Your task to perform on an android device: Search for "razer nari" on amazon.com, select the first entry, and add it to the cart. Image 0: 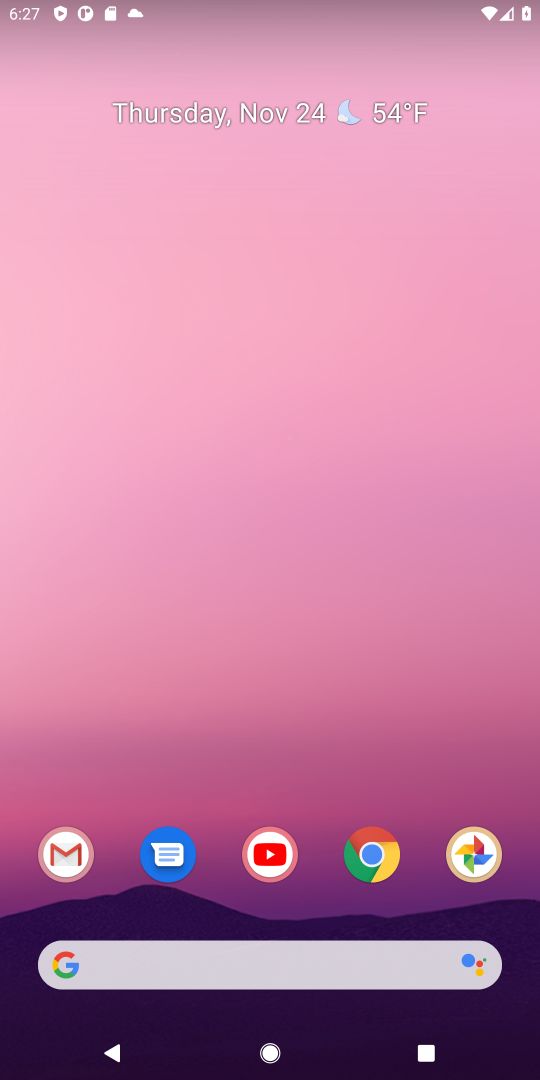
Step 0: click (379, 849)
Your task to perform on an android device: Search for "razer nari" on amazon.com, select the first entry, and add it to the cart. Image 1: 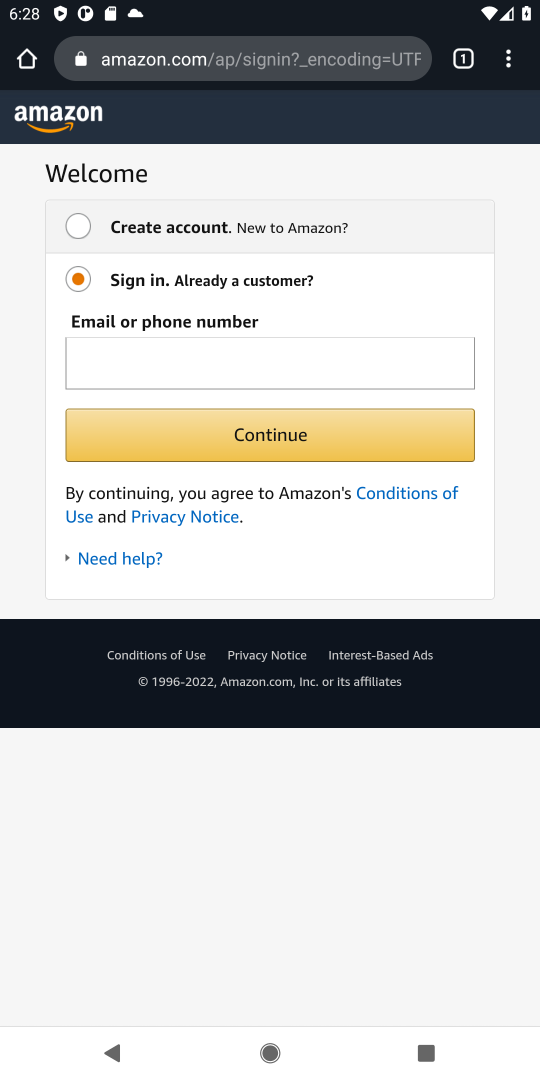
Step 1: press back button
Your task to perform on an android device: Search for "razer nari" on amazon.com, select the first entry, and add it to the cart. Image 2: 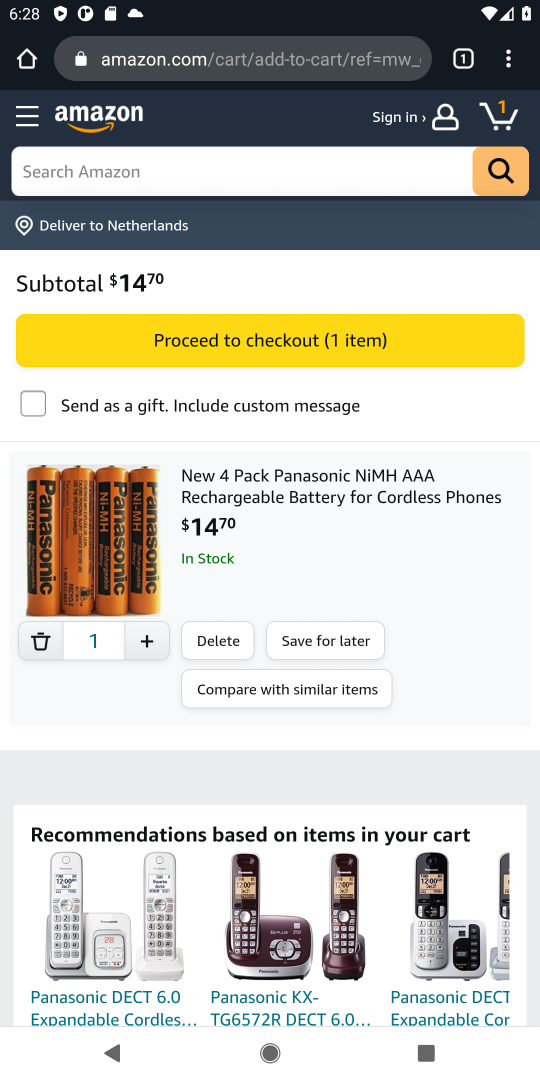
Step 2: click (159, 174)
Your task to perform on an android device: Search for "razer nari" on amazon.com, select the first entry, and add it to the cart. Image 3: 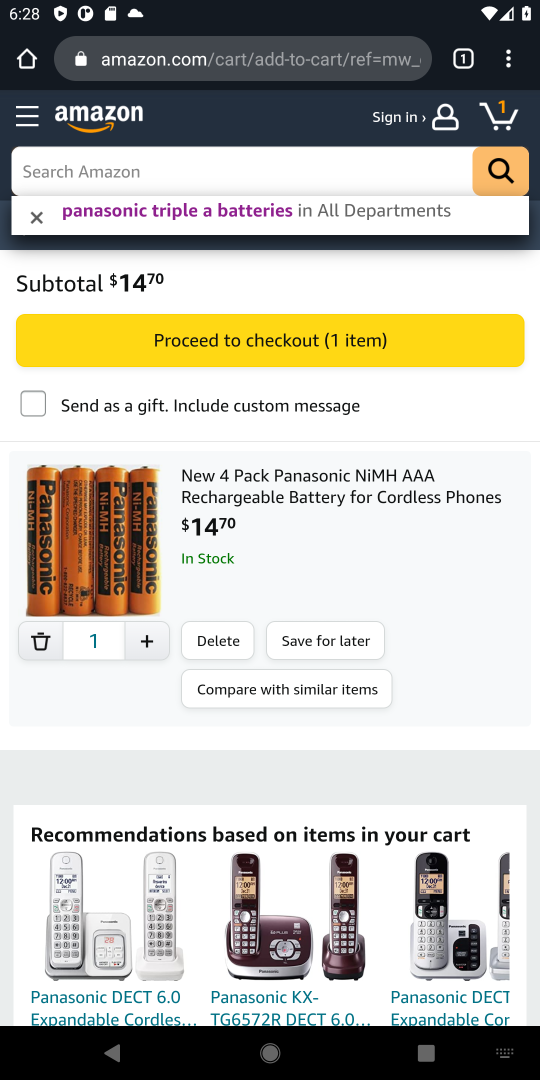
Step 3: type "razer nari"
Your task to perform on an android device: Search for "razer nari" on amazon.com, select the first entry, and add it to the cart. Image 4: 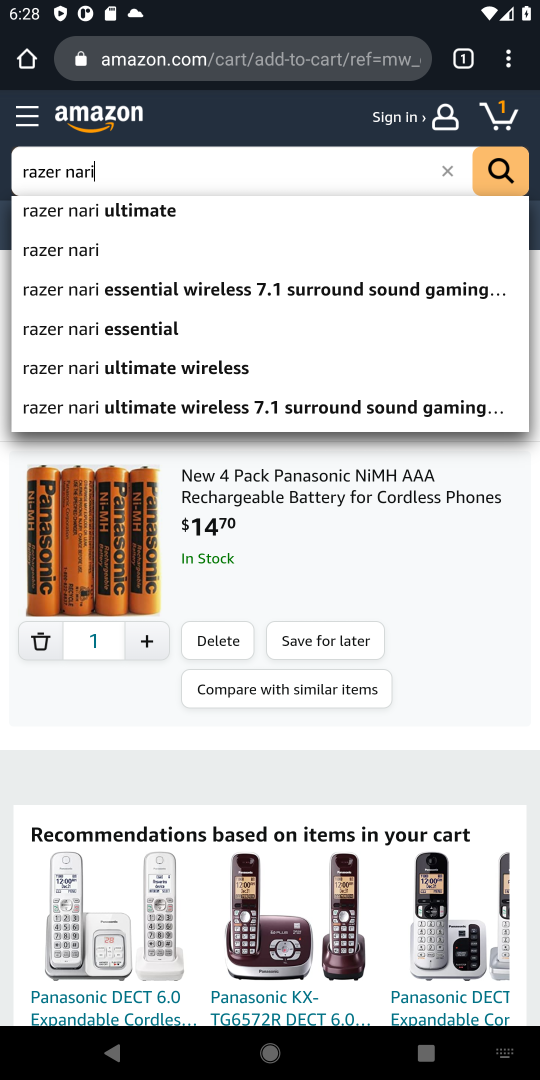
Step 4: click (47, 254)
Your task to perform on an android device: Search for "razer nari" on amazon.com, select the first entry, and add it to the cart. Image 5: 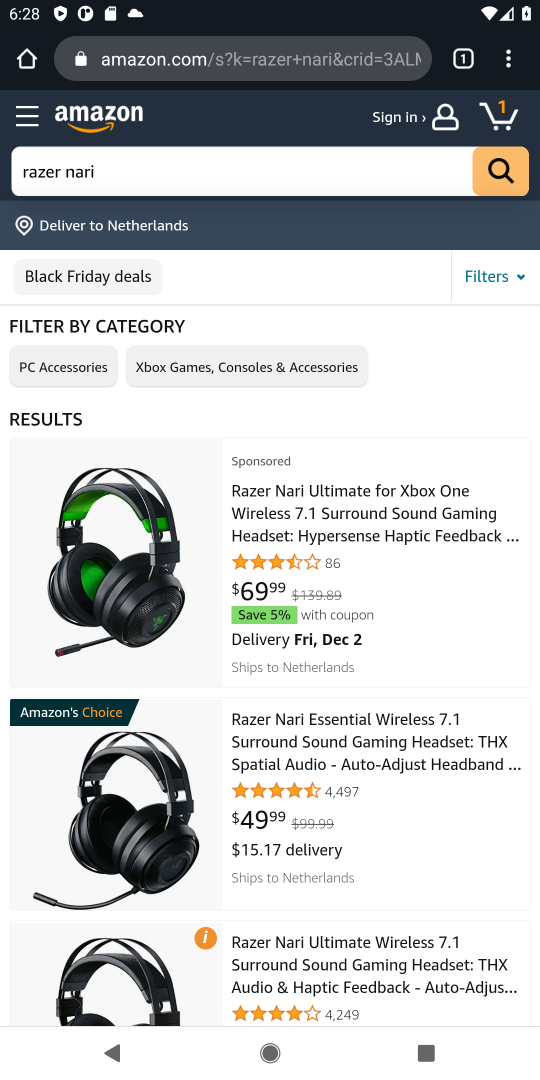
Step 5: click (81, 606)
Your task to perform on an android device: Search for "razer nari" on amazon.com, select the first entry, and add it to the cart. Image 6: 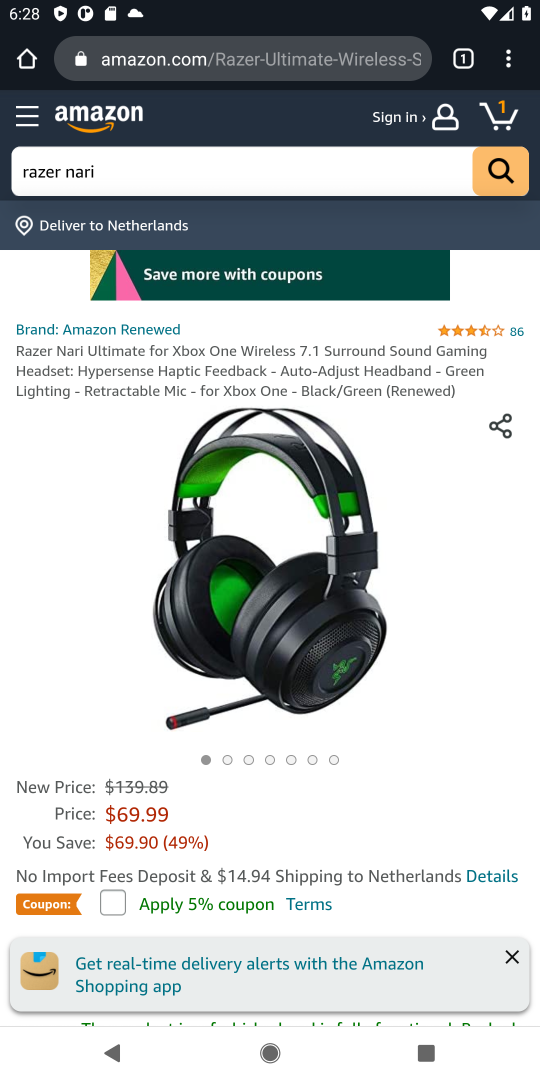
Step 6: drag from (313, 765) to (284, 396)
Your task to perform on an android device: Search for "razer nari" on amazon.com, select the first entry, and add it to the cart. Image 7: 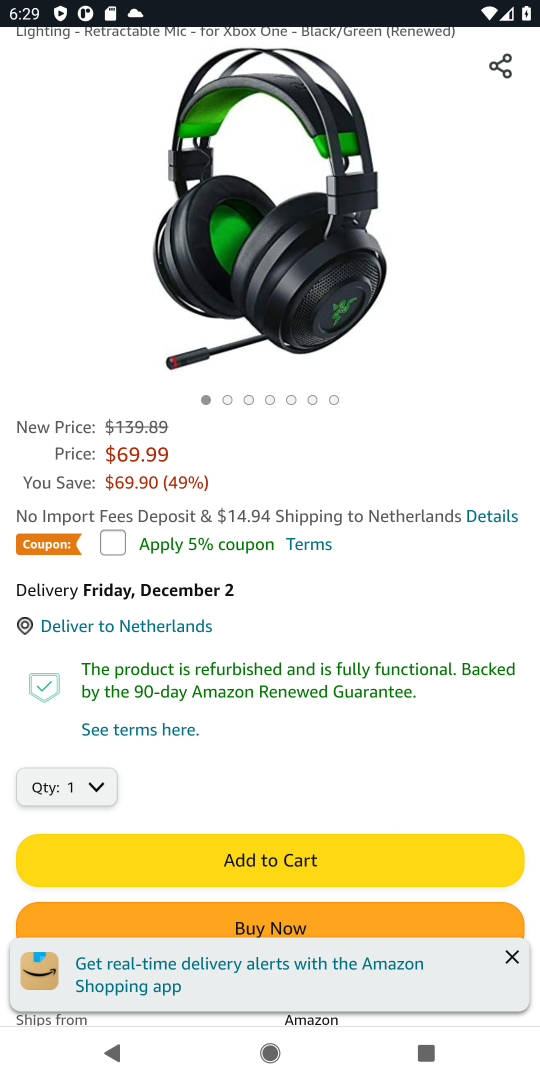
Step 7: drag from (255, 620) to (265, 390)
Your task to perform on an android device: Search for "razer nari" on amazon.com, select the first entry, and add it to the cart. Image 8: 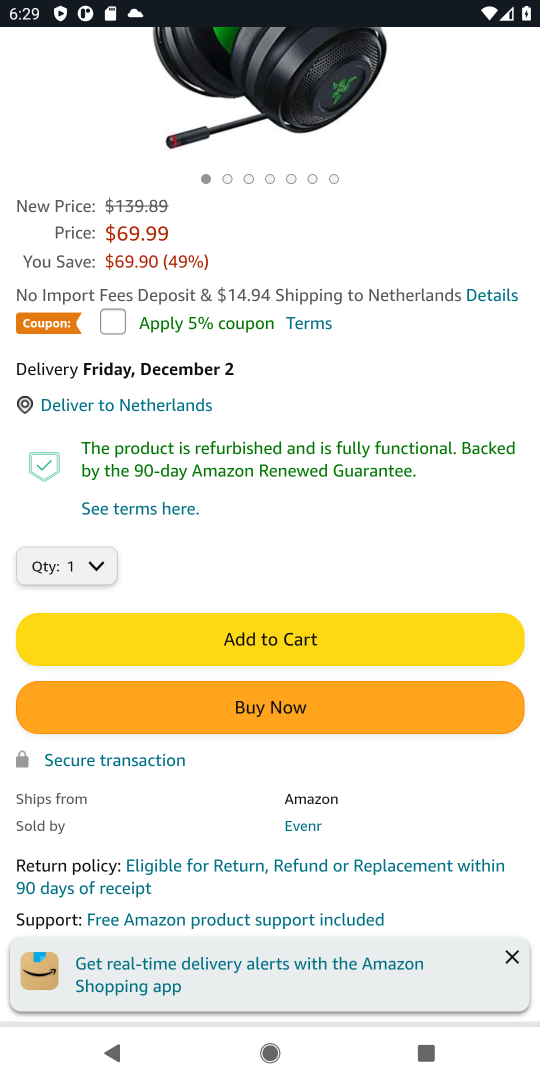
Step 8: click (234, 649)
Your task to perform on an android device: Search for "razer nari" on amazon.com, select the first entry, and add it to the cart. Image 9: 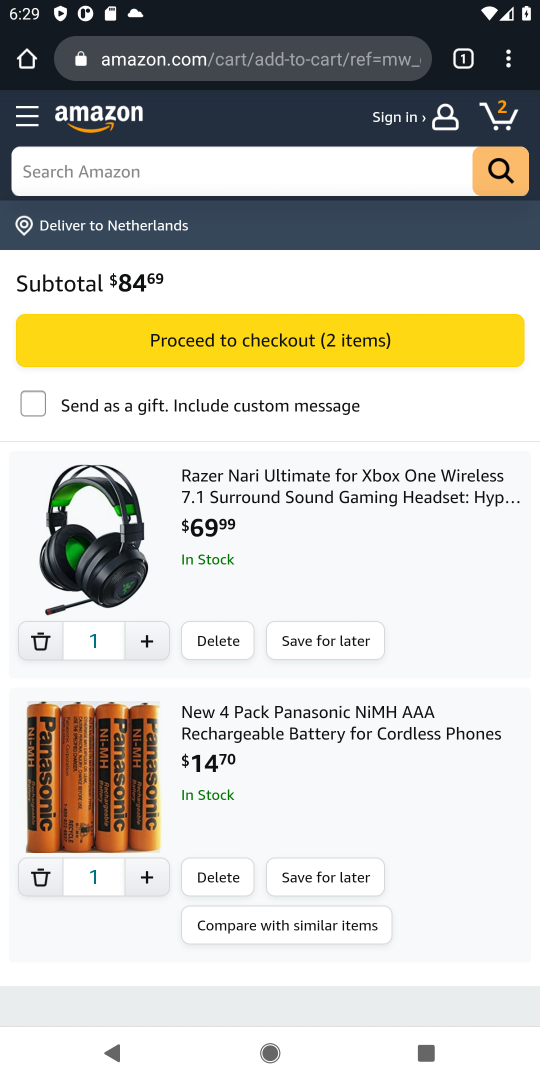
Step 9: task complete